Your task to perform on an android device: Open battery settings Image 0: 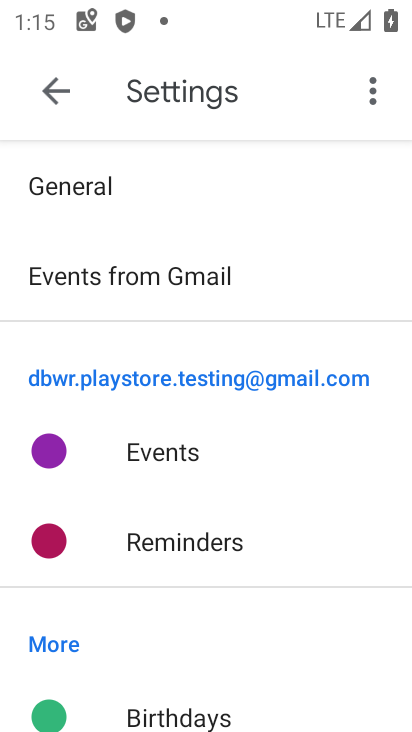
Step 0: press home button
Your task to perform on an android device: Open battery settings Image 1: 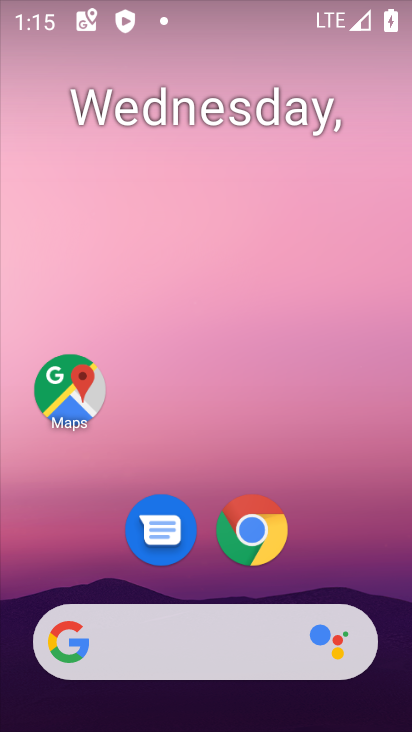
Step 1: drag from (322, 547) to (305, 190)
Your task to perform on an android device: Open battery settings Image 2: 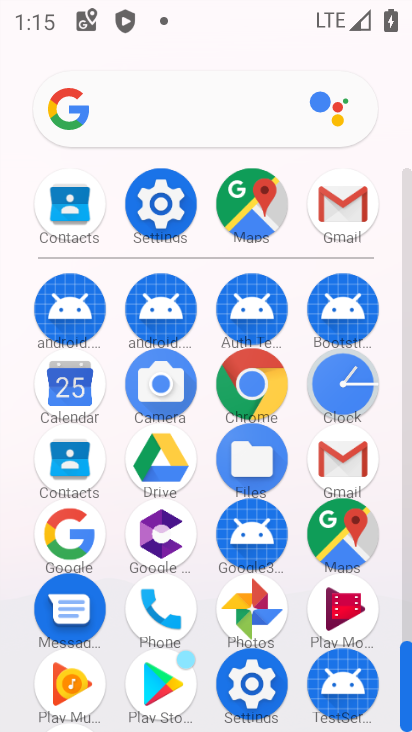
Step 2: click (152, 209)
Your task to perform on an android device: Open battery settings Image 3: 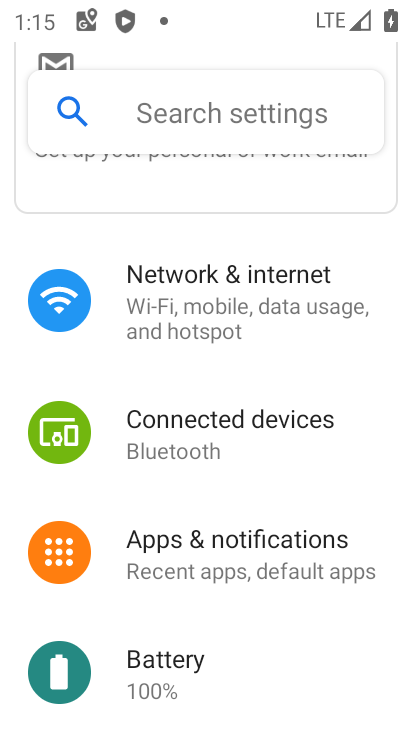
Step 3: click (180, 660)
Your task to perform on an android device: Open battery settings Image 4: 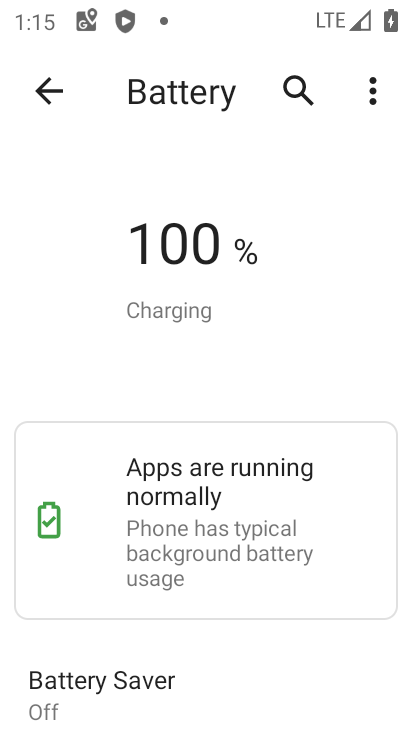
Step 4: task complete